Your task to perform on an android device: turn off notifications settings in the gmail app Image 0: 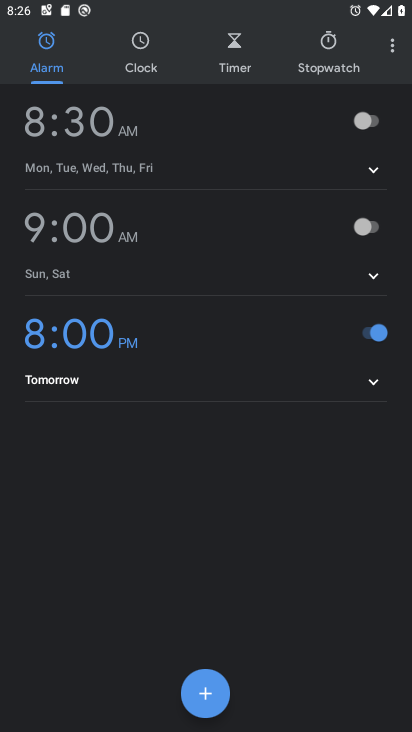
Step 0: press home button
Your task to perform on an android device: turn off notifications settings in the gmail app Image 1: 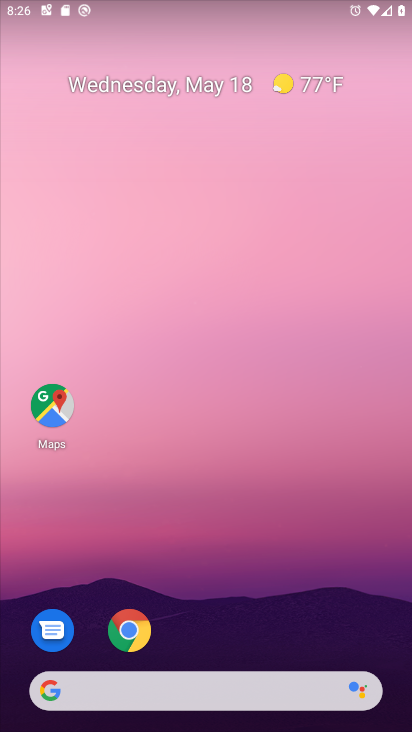
Step 1: drag from (258, 634) to (281, 113)
Your task to perform on an android device: turn off notifications settings in the gmail app Image 2: 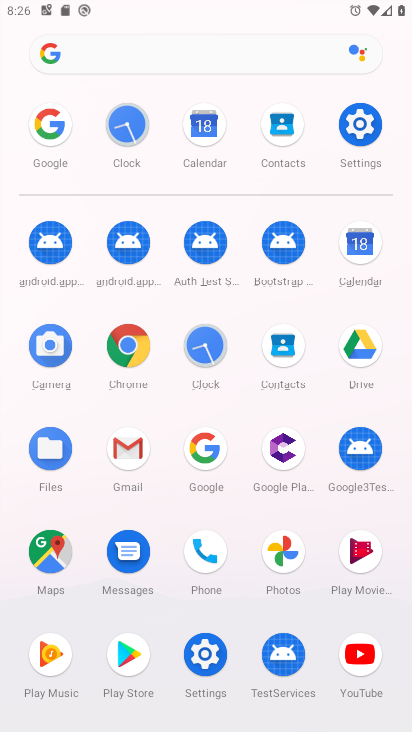
Step 2: click (130, 446)
Your task to perform on an android device: turn off notifications settings in the gmail app Image 3: 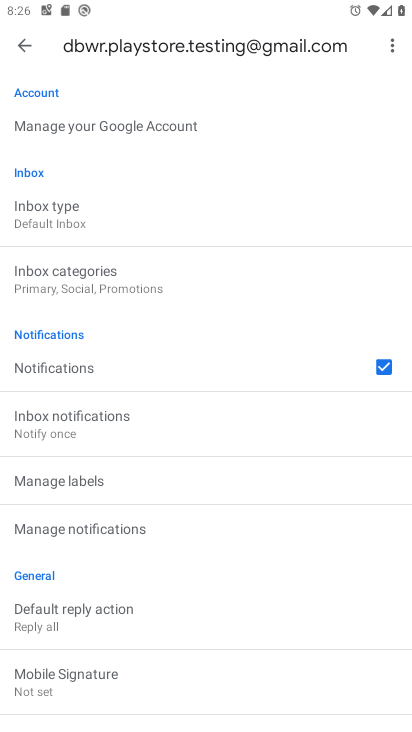
Step 3: click (382, 360)
Your task to perform on an android device: turn off notifications settings in the gmail app Image 4: 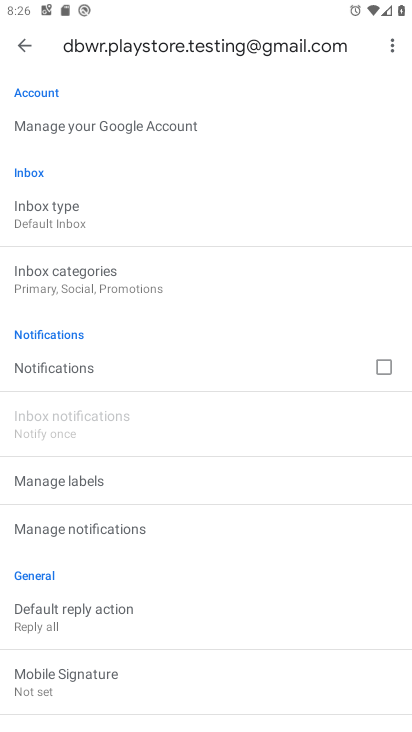
Step 4: task complete